Your task to perform on an android device: Go to Reddit.com Image 0: 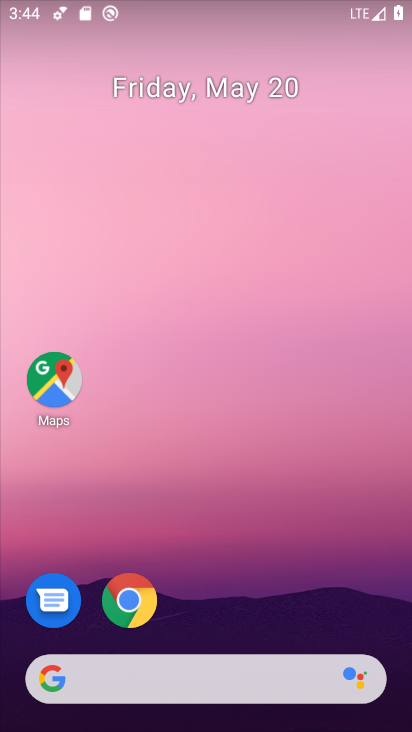
Step 0: drag from (370, 552) to (359, 193)
Your task to perform on an android device: Go to Reddit.com Image 1: 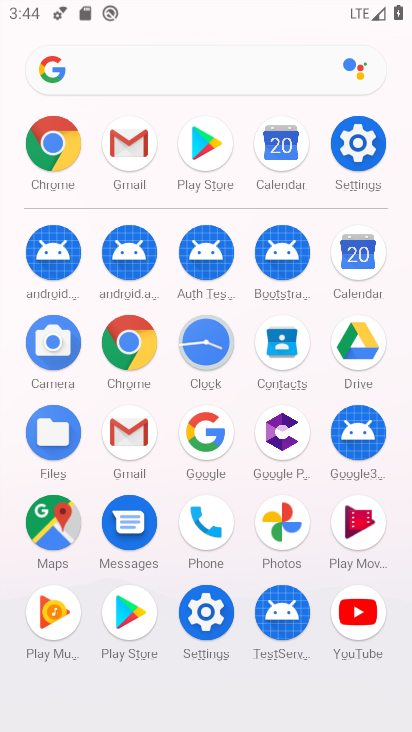
Step 1: click (120, 347)
Your task to perform on an android device: Go to Reddit.com Image 2: 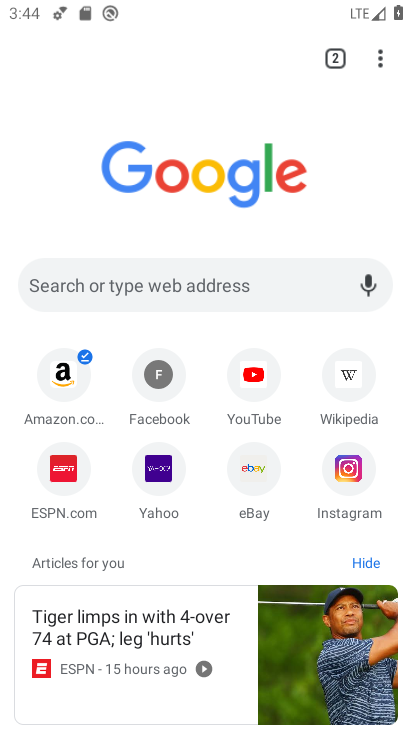
Step 2: click (222, 290)
Your task to perform on an android device: Go to Reddit.com Image 3: 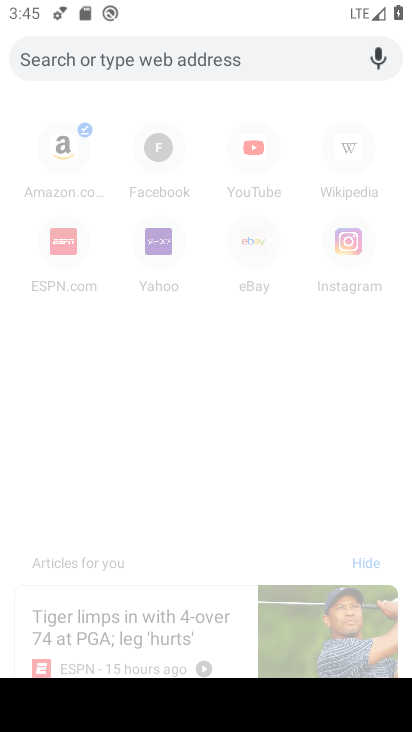
Step 3: type "reddit.com"
Your task to perform on an android device: Go to Reddit.com Image 4: 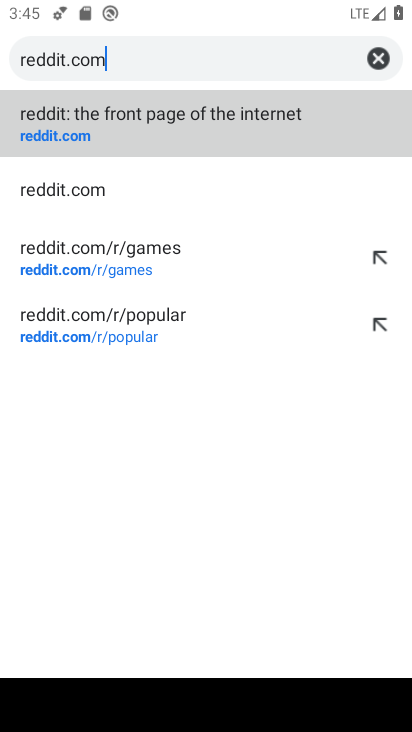
Step 4: click (98, 206)
Your task to perform on an android device: Go to Reddit.com Image 5: 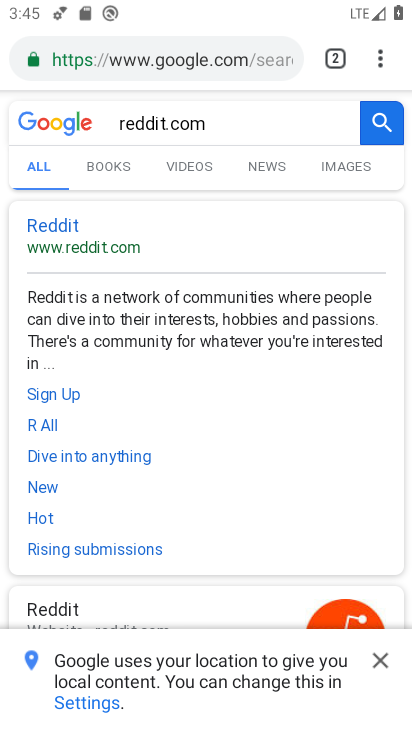
Step 5: task complete